Your task to perform on an android device: read, delete, or share a saved page in the chrome app Image 0: 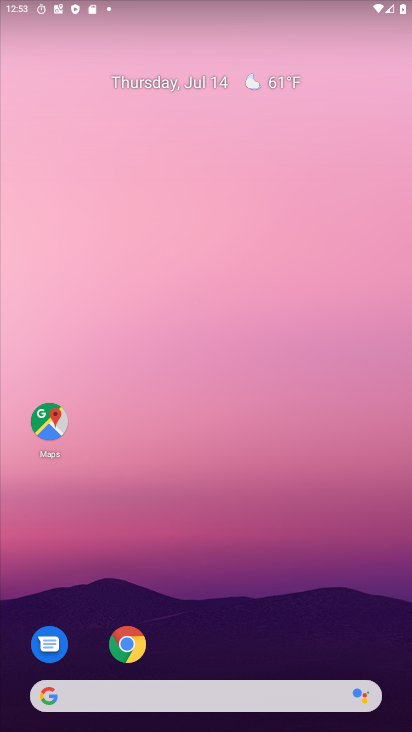
Step 0: drag from (202, 694) to (132, 124)
Your task to perform on an android device: read, delete, or share a saved page in the chrome app Image 1: 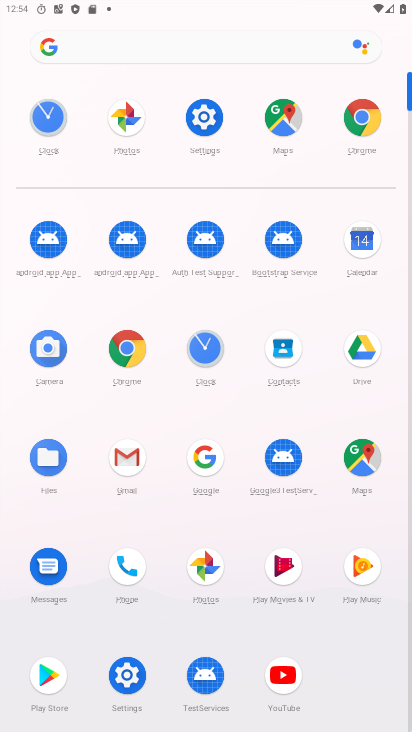
Step 1: click (132, 342)
Your task to perform on an android device: read, delete, or share a saved page in the chrome app Image 2: 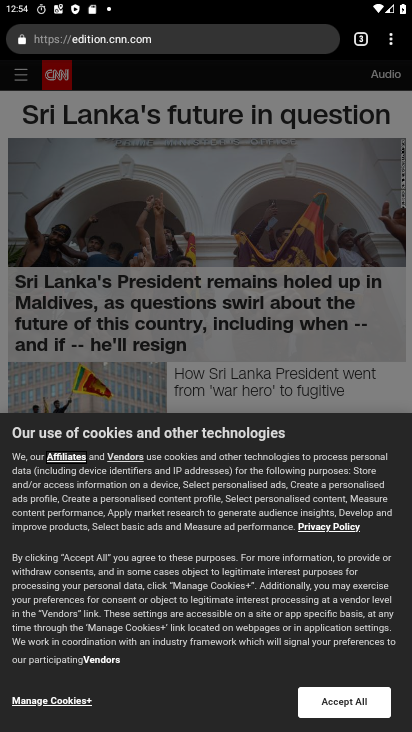
Step 2: task complete